Your task to perform on an android device: Go to calendar. Show me events next week Image 0: 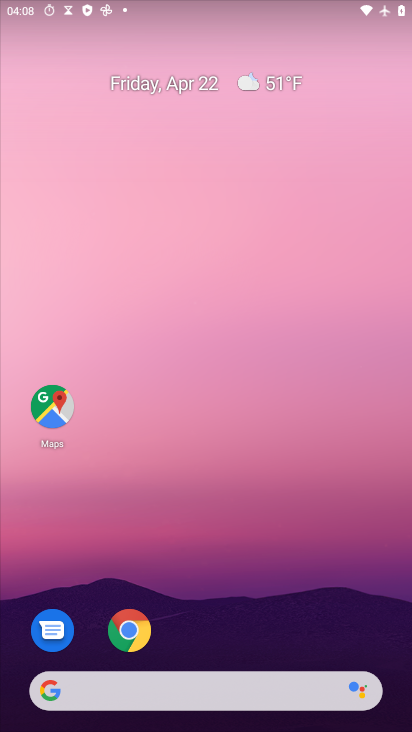
Step 0: drag from (340, 515) to (317, 34)
Your task to perform on an android device: Go to calendar. Show me events next week Image 1: 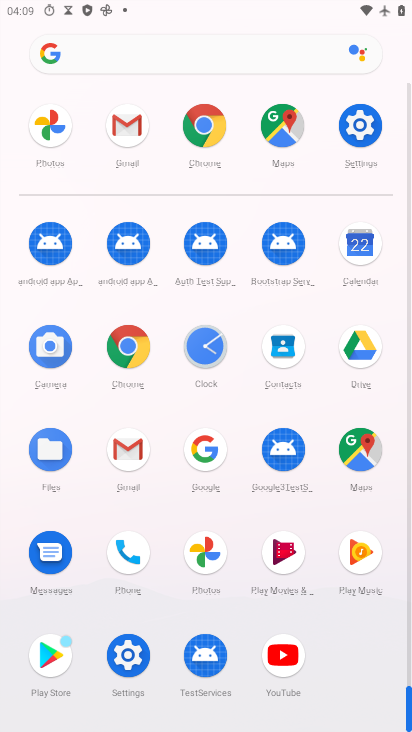
Step 1: drag from (16, 539) to (10, 287)
Your task to perform on an android device: Go to calendar. Show me events next week Image 2: 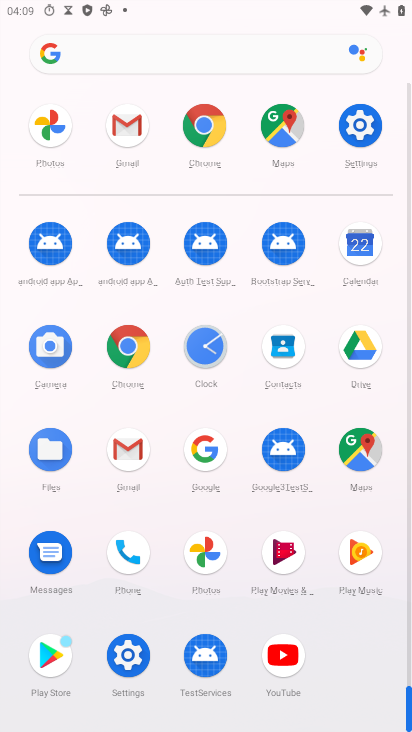
Step 2: click (357, 241)
Your task to perform on an android device: Go to calendar. Show me events next week Image 3: 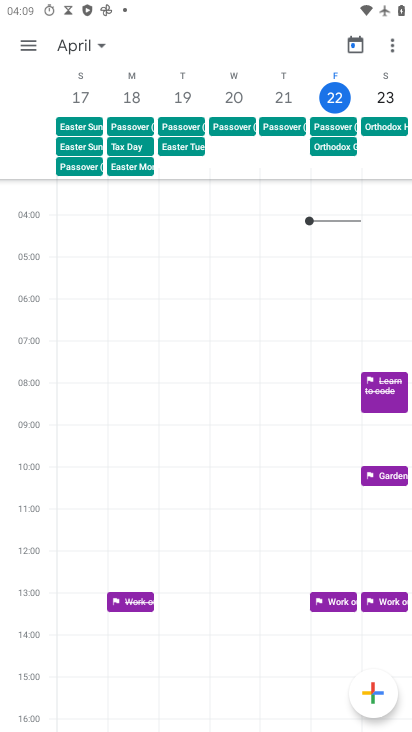
Step 3: task complete